Your task to perform on an android device: turn off wifi Image 0: 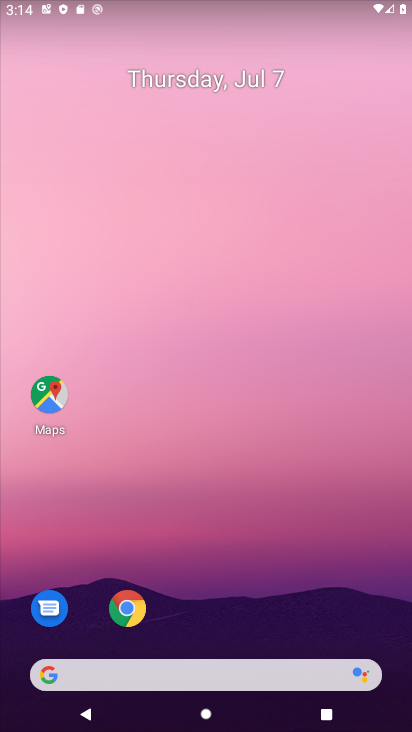
Step 0: drag from (385, 631) to (336, 117)
Your task to perform on an android device: turn off wifi Image 1: 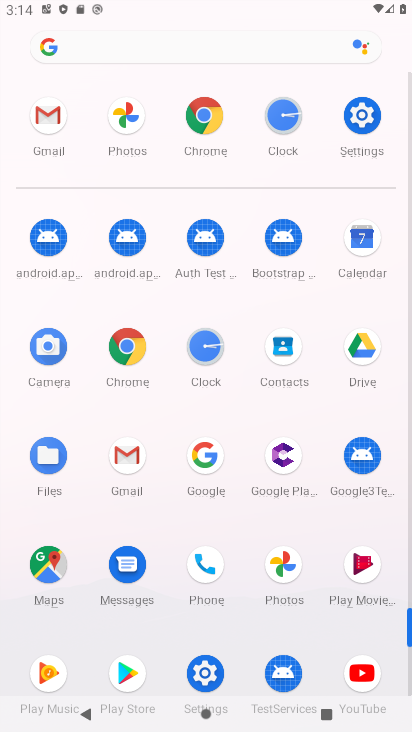
Step 1: click (206, 673)
Your task to perform on an android device: turn off wifi Image 2: 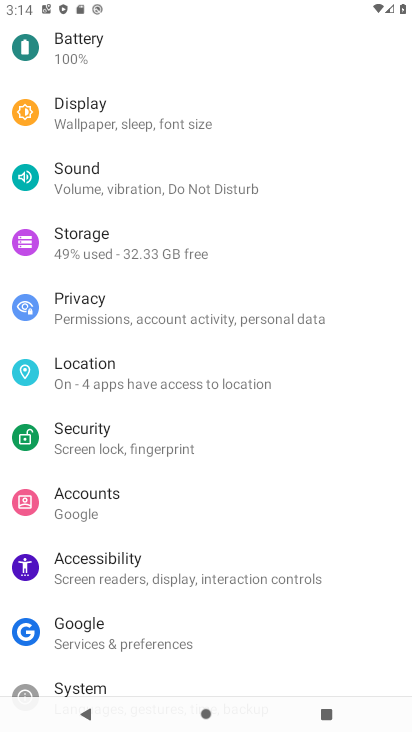
Step 2: drag from (343, 115) to (331, 455)
Your task to perform on an android device: turn off wifi Image 3: 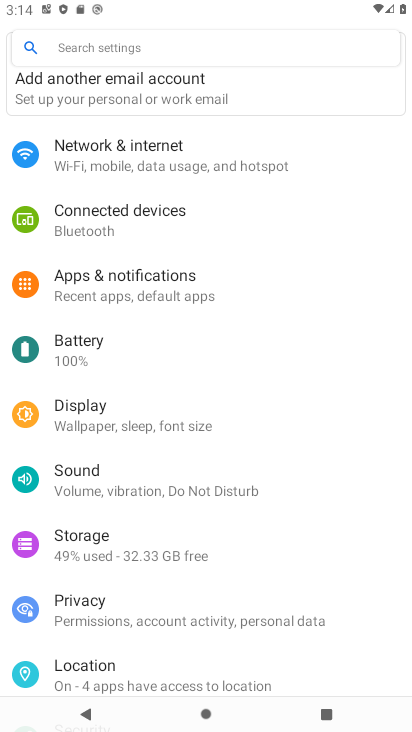
Step 3: click (85, 150)
Your task to perform on an android device: turn off wifi Image 4: 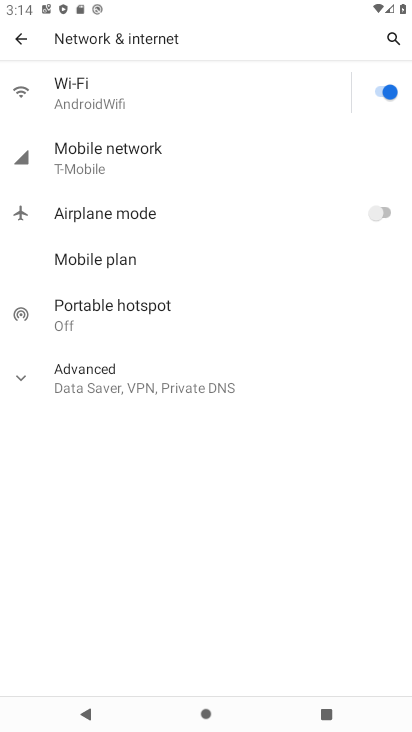
Step 4: click (379, 94)
Your task to perform on an android device: turn off wifi Image 5: 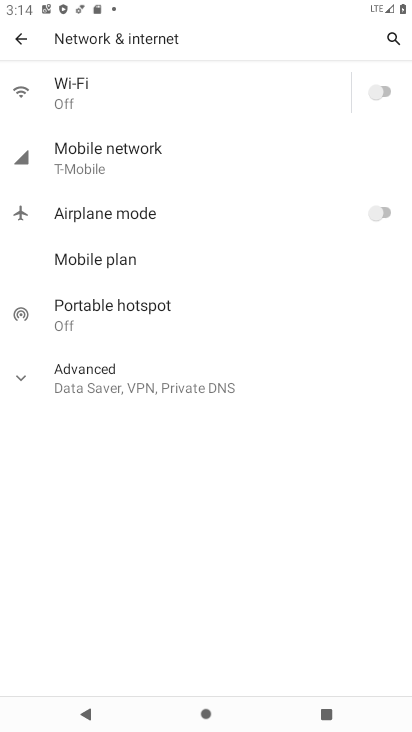
Step 5: task complete